Your task to perform on an android device: add a label to a message in the gmail app Image 0: 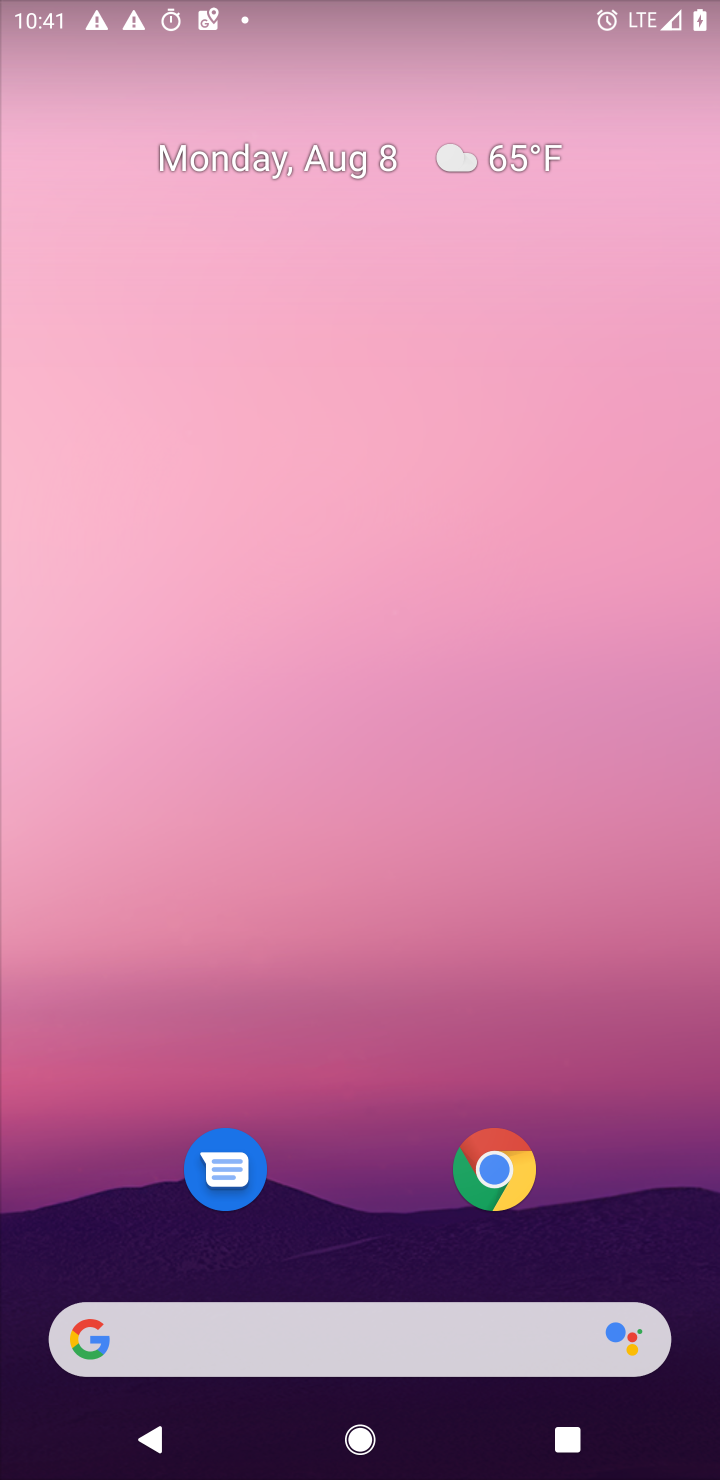
Step 0: click (393, 1025)
Your task to perform on an android device: add a label to a message in the gmail app Image 1: 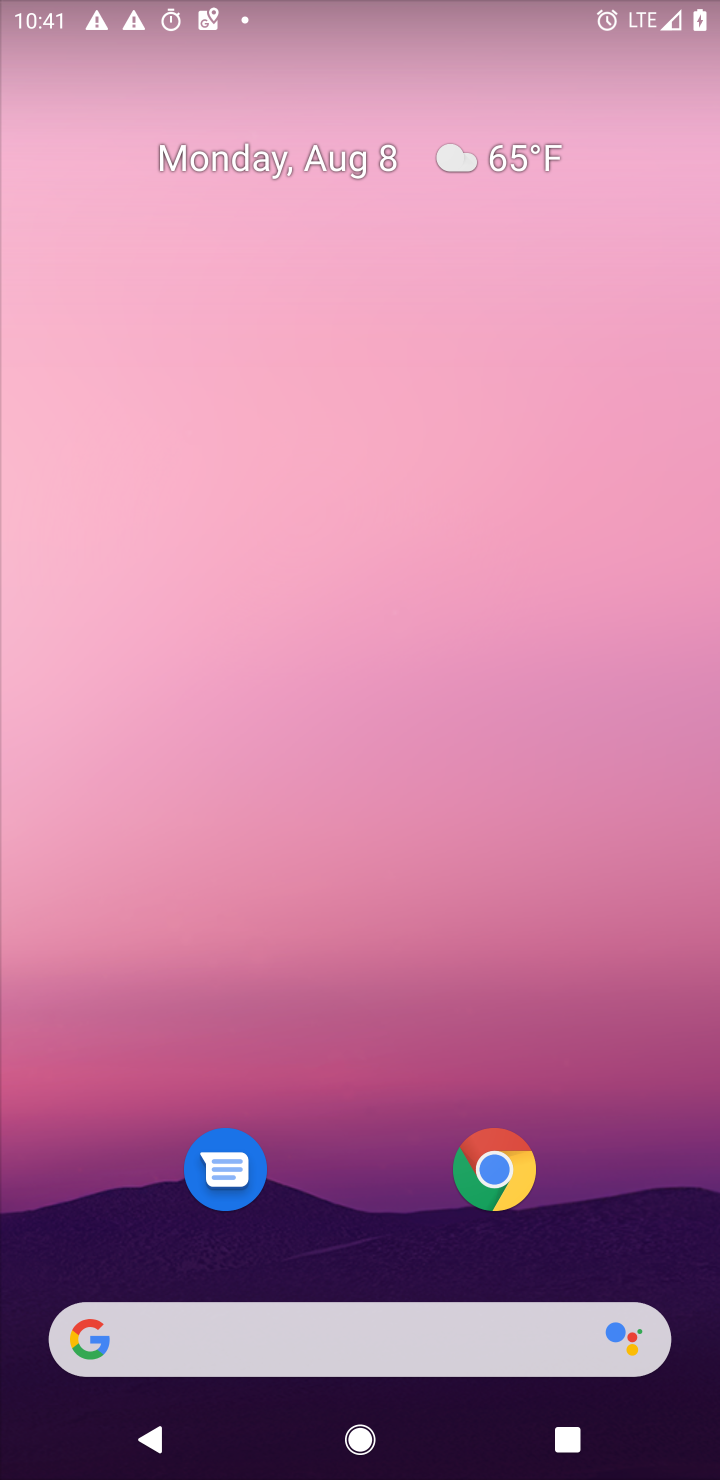
Step 1: drag from (397, 1123) to (538, 18)
Your task to perform on an android device: add a label to a message in the gmail app Image 2: 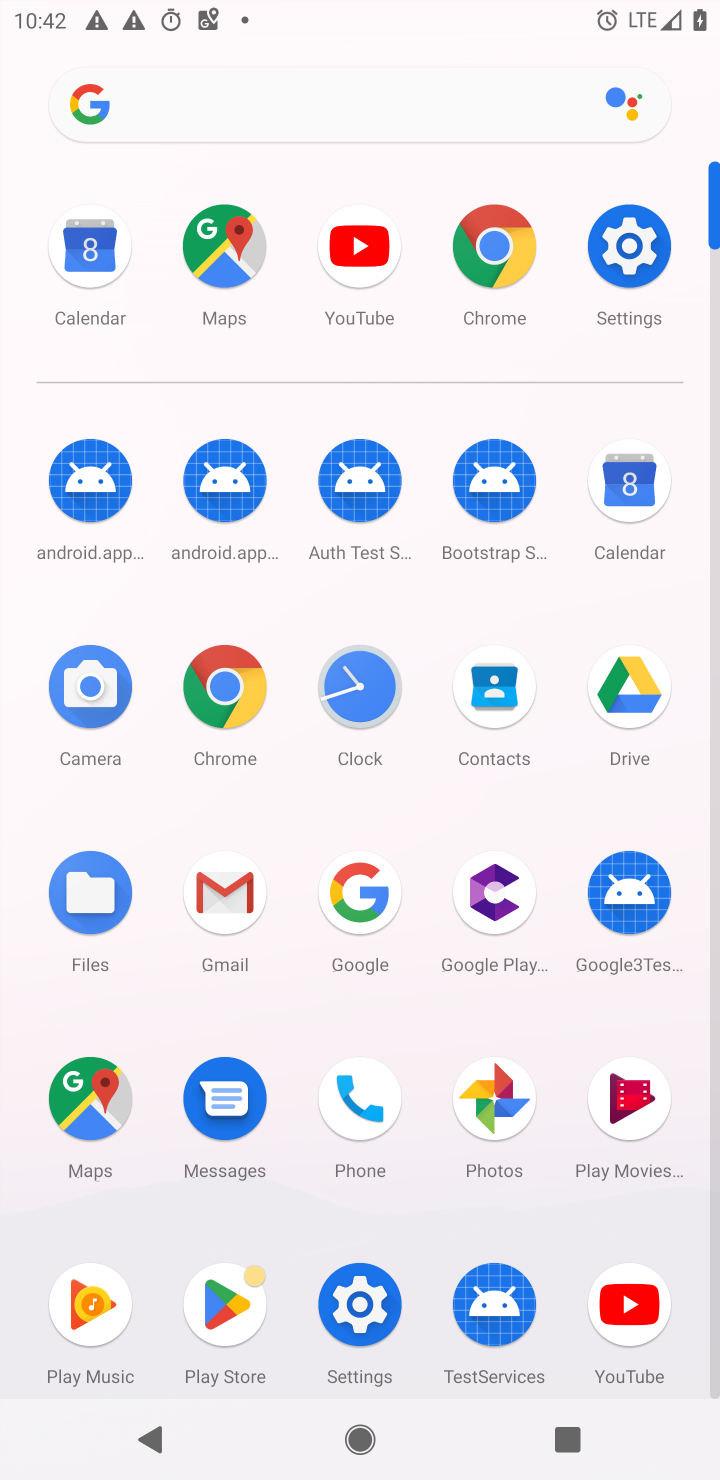
Step 2: click (210, 922)
Your task to perform on an android device: add a label to a message in the gmail app Image 3: 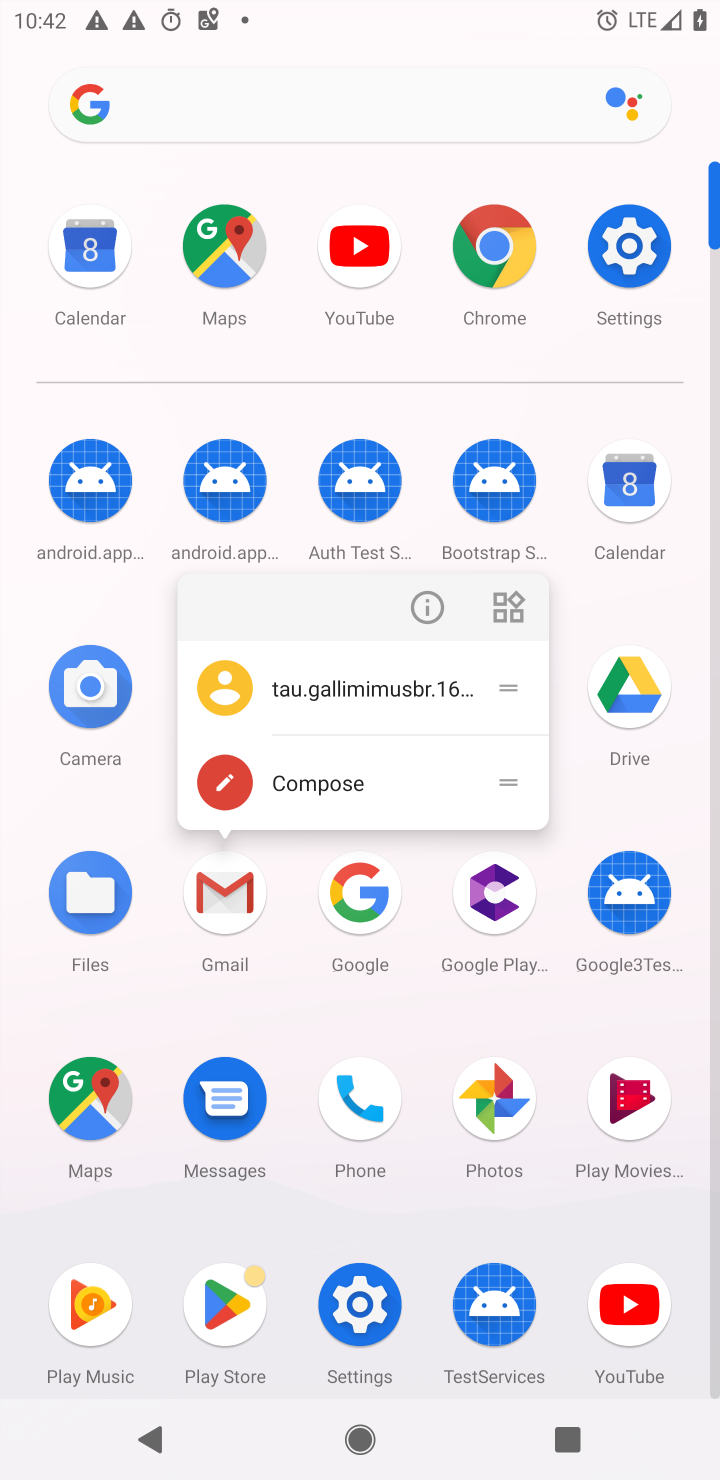
Step 3: click (255, 919)
Your task to perform on an android device: add a label to a message in the gmail app Image 4: 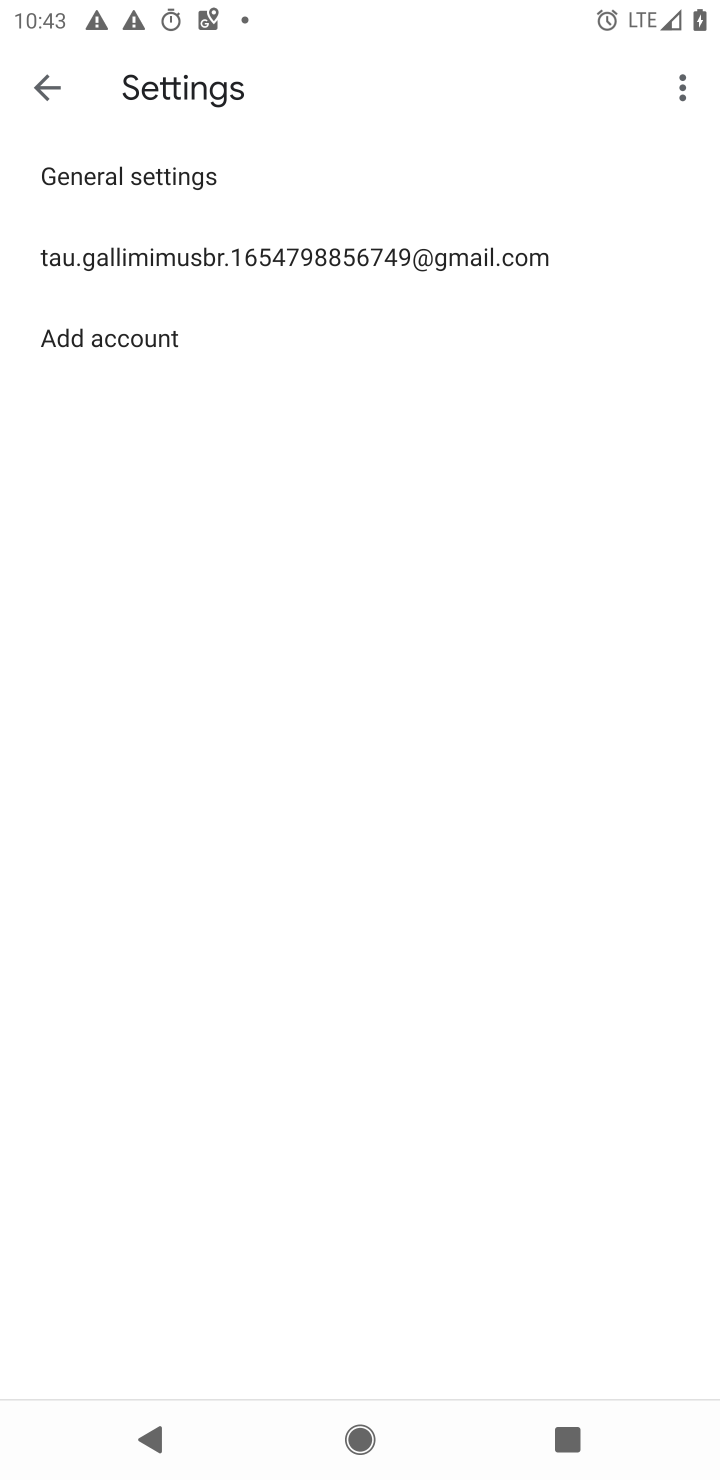
Step 4: click (53, 91)
Your task to perform on an android device: add a label to a message in the gmail app Image 5: 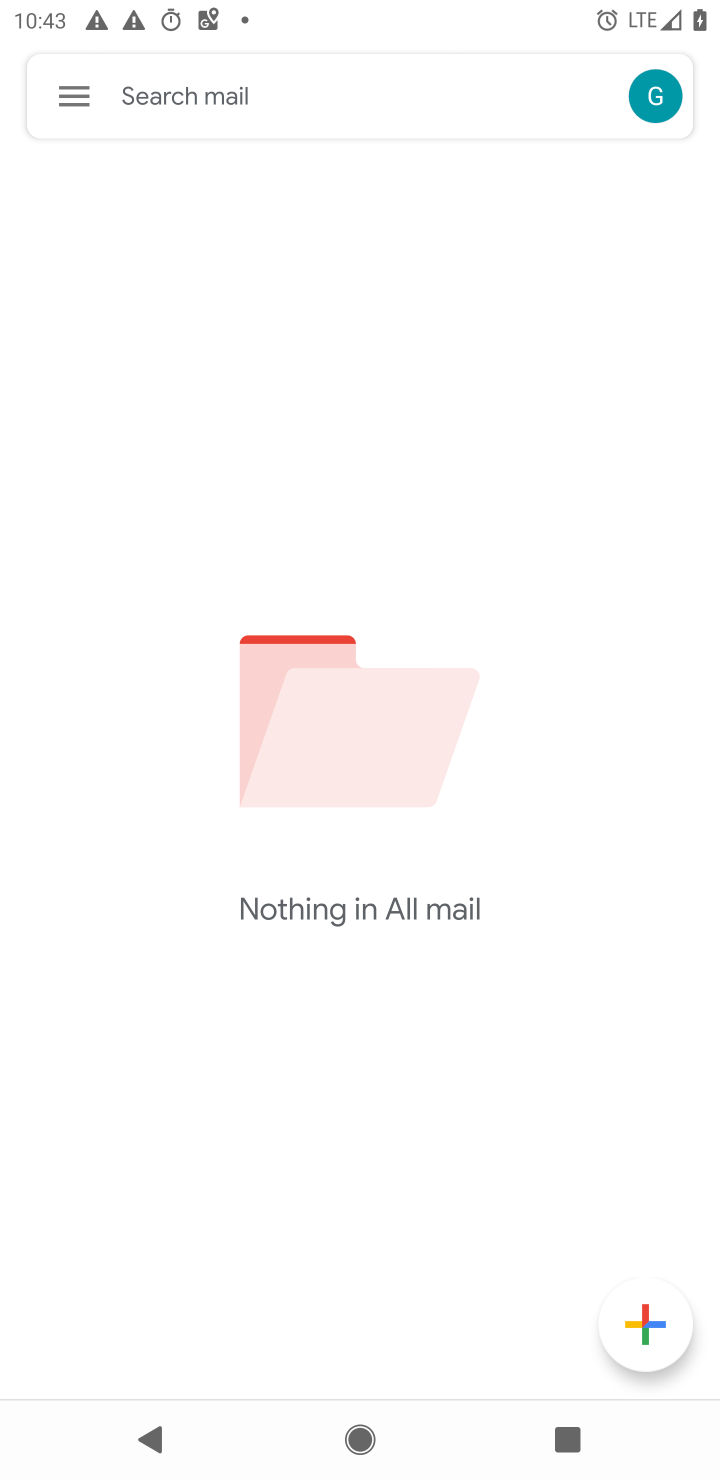
Step 5: task complete